Your task to perform on an android device: turn on wifi Image 0: 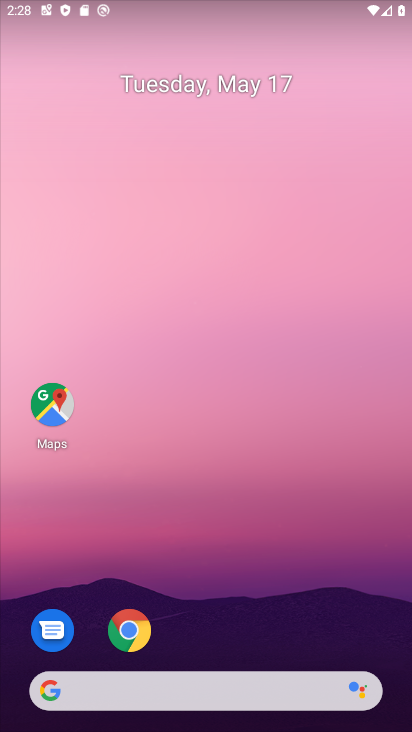
Step 0: press home button
Your task to perform on an android device: turn on wifi Image 1: 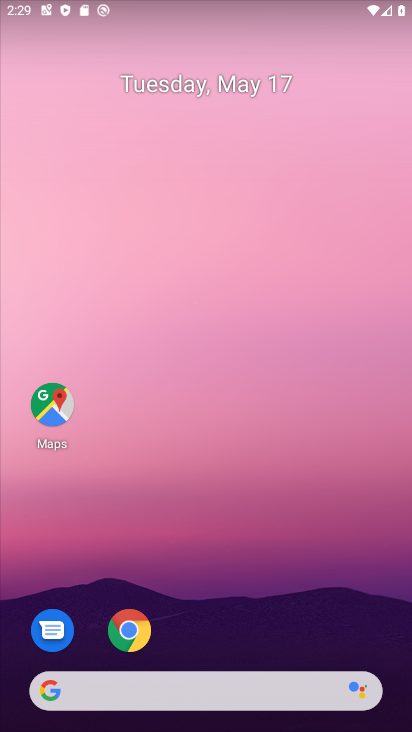
Step 1: drag from (177, 670) to (278, 102)
Your task to perform on an android device: turn on wifi Image 2: 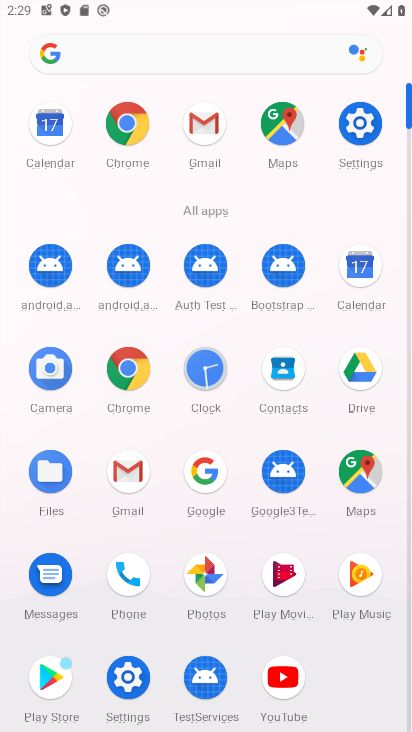
Step 2: click (356, 127)
Your task to perform on an android device: turn on wifi Image 3: 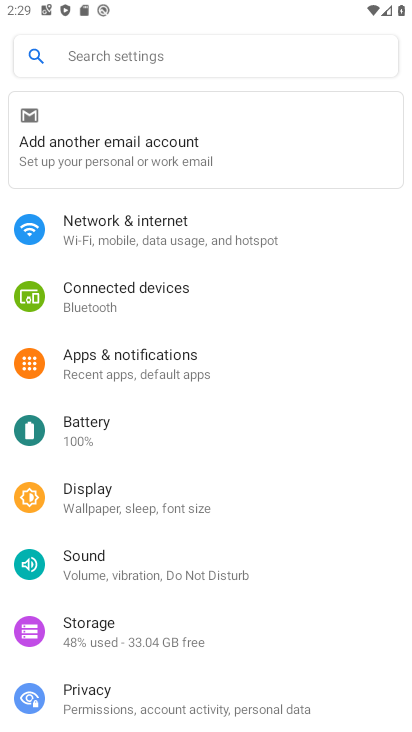
Step 3: click (94, 220)
Your task to perform on an android device: turn on wifi Image 4: 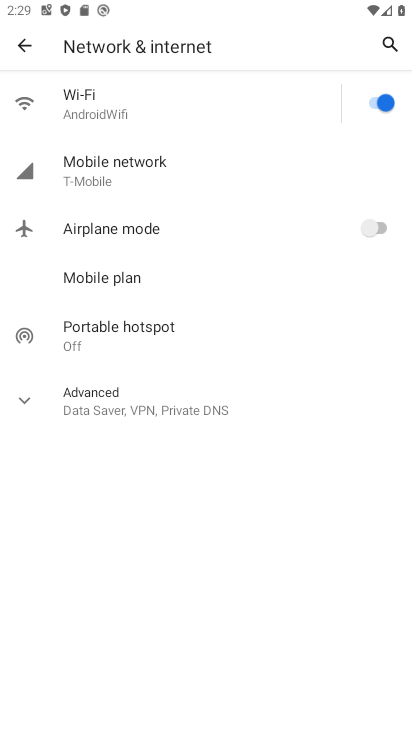
Step 4: click (117, 109)
Your task to perform on an android device: turn on wifi Image 5: 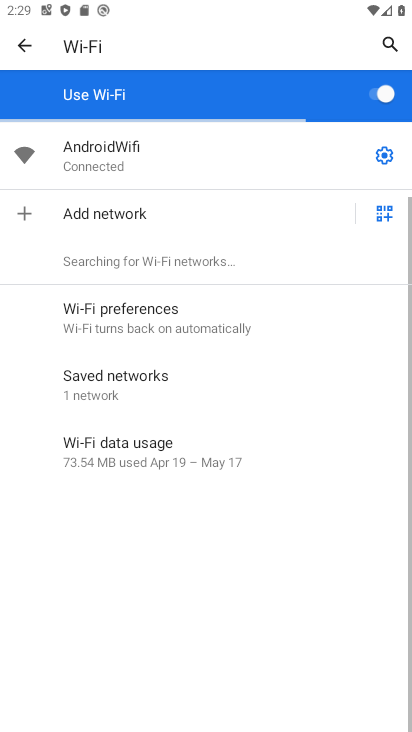
Step 5: task complete